Your task to perform on an android device: open a new tab in the chrome app Image 0: 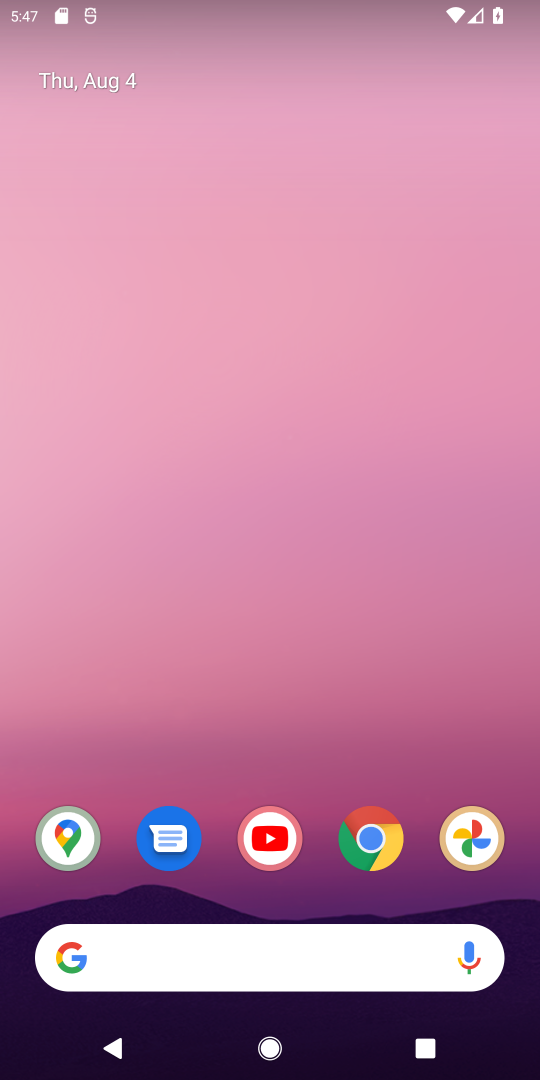
Step 0: press home button
Your task to perform on an android device: open a new tab in the chrome app Image 1: 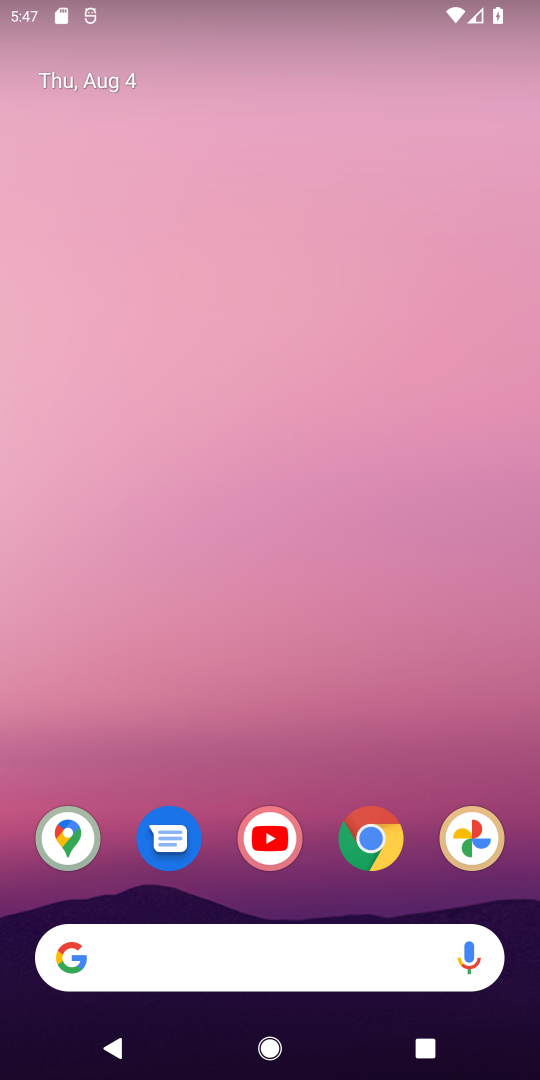
Step 1: click (378, 870)
Your task to perform on an android device: open a new tab in the chrome app Image 2: 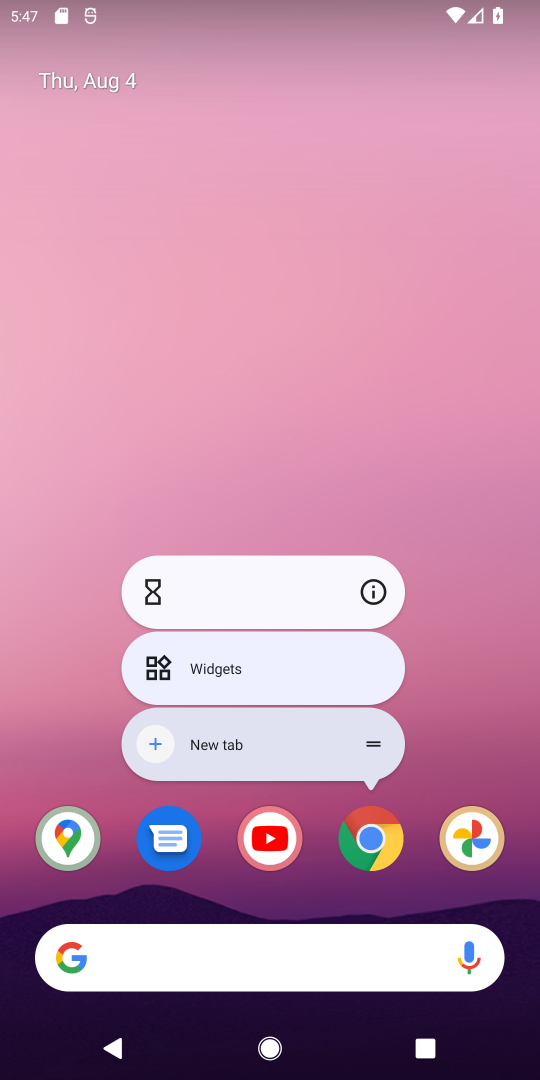
Step 2: click (378, 870)
Your task to perform on an android device: open a new tab in the chrome app Image 3: 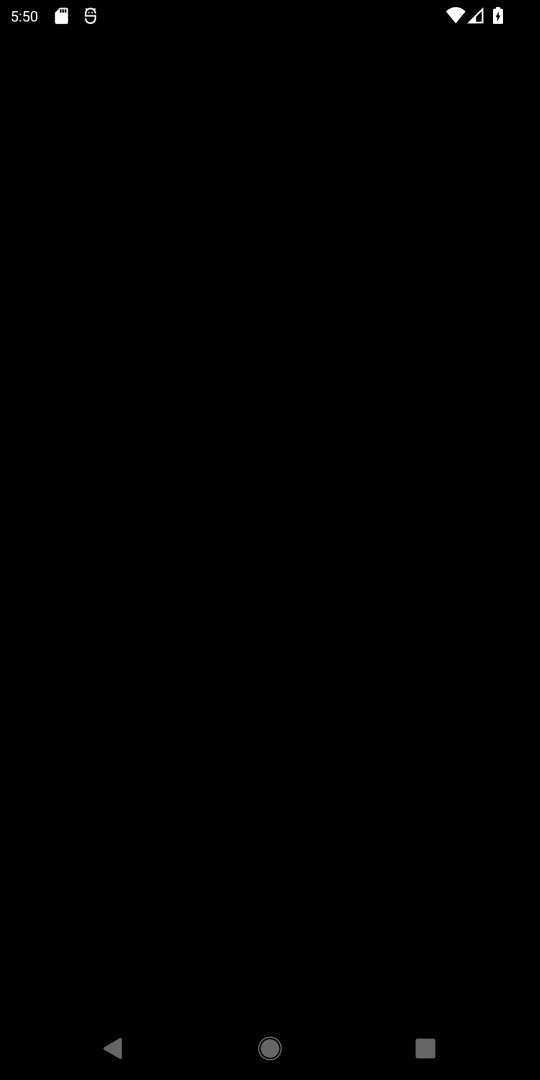
Step 3: task complete